Your task to perform on an android device: turn off javascript in the chrome app Image 0: 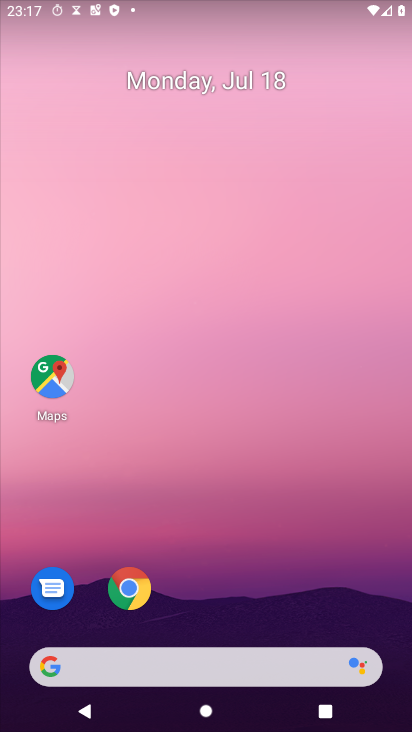
Step 0: click (129, 587)
Your task to perform on an android device: turn off javascript in the chrome app Image 1: 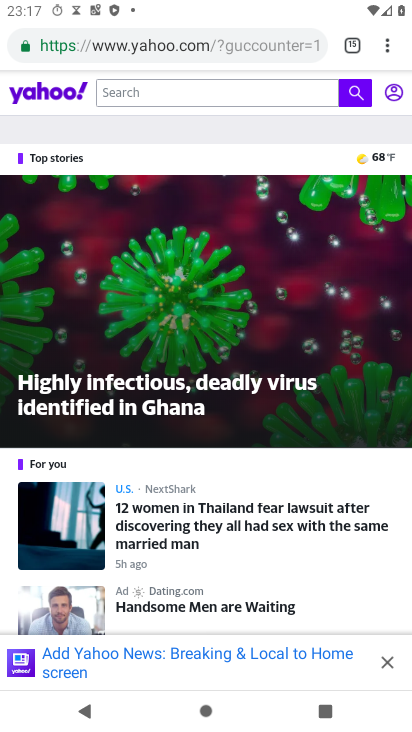
Step 1: drag from (386, 43) to (251, 545)
Your task to perform on an android device: turn off javascript in the chrome app Image 2: 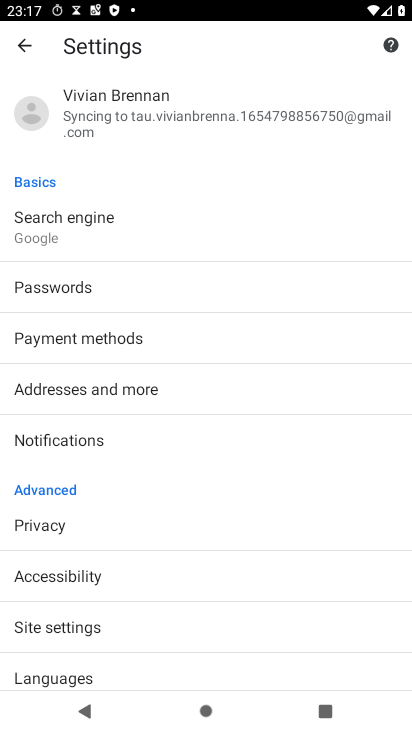
Step 2: click (98, 627)
Your task to perform on an android device: turn off javascript in the chrome app Image 3: 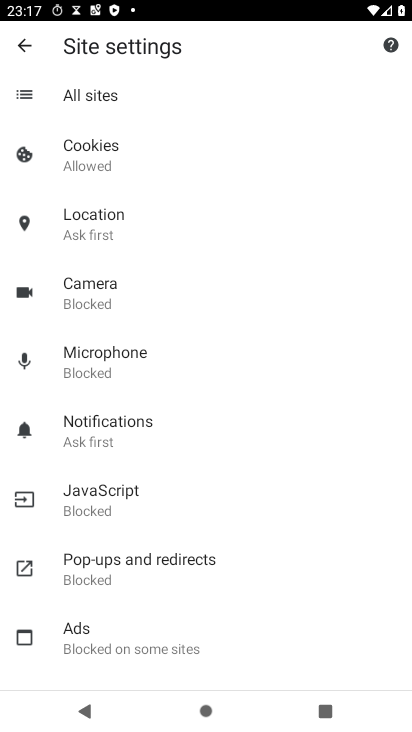
Step 3: click (99, 498)
Your task to perform on an android device: turn off javascript in the chrome app Image 4: 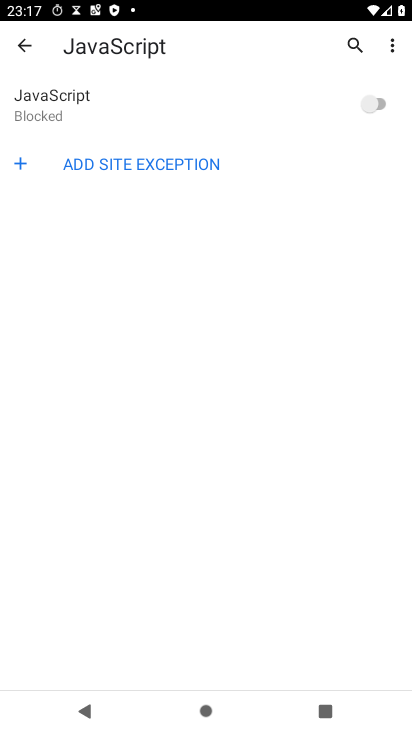
Step 4: task complete